Your task to perform on an android device: allow cookies in the chrome app Image 0: 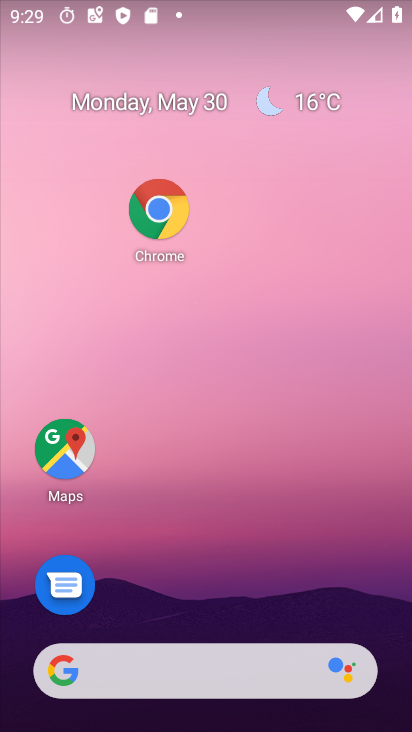
Step 0: drag from (235, 654) to (381, 116)
Your task to perform on an android device: allow cookies in the chrome app Image 1: 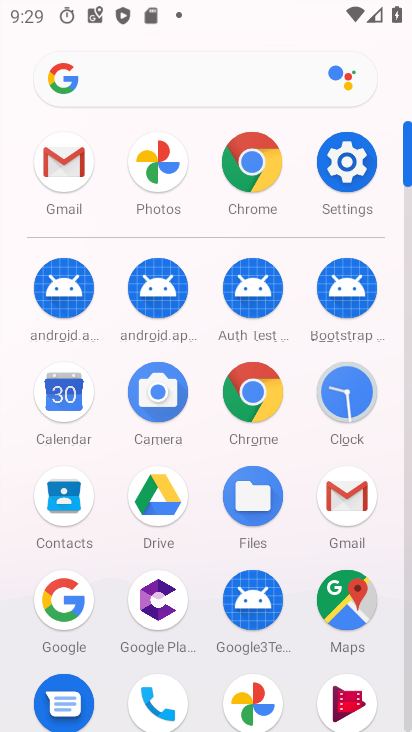
Step 1: click (262, 158)
Your task to perform on an android device: allow cookies in the chrome app Image 2: 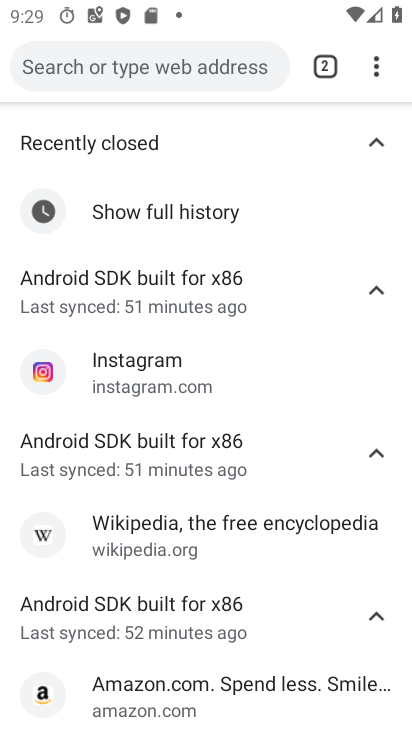
Step 2: drag from (379, 62) to (223, 552)
Your task to perform on an android device: allow cookies in the chrome app Image 3: 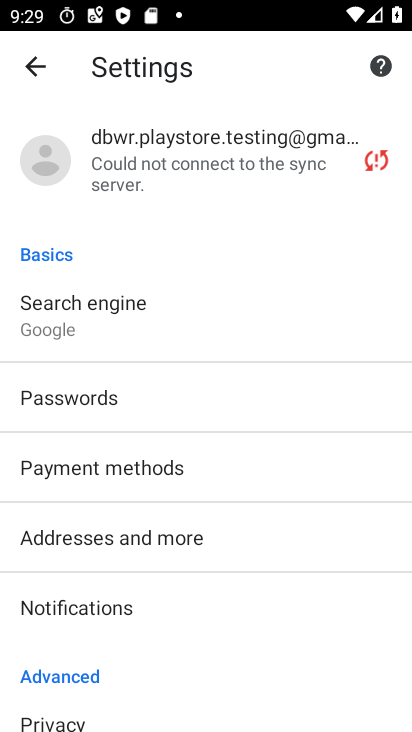
Step 3: drag from (178, 569) to (405, 128)
Your task to perform on an android device: allow cookies in the chrome app Image 4: 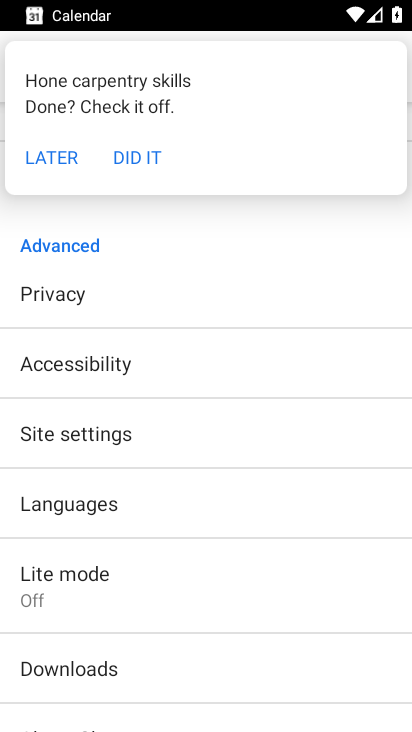
Step 4: click (151, 436)
Your task to perform on an android device: allow cookies in the chrome app Image 5: 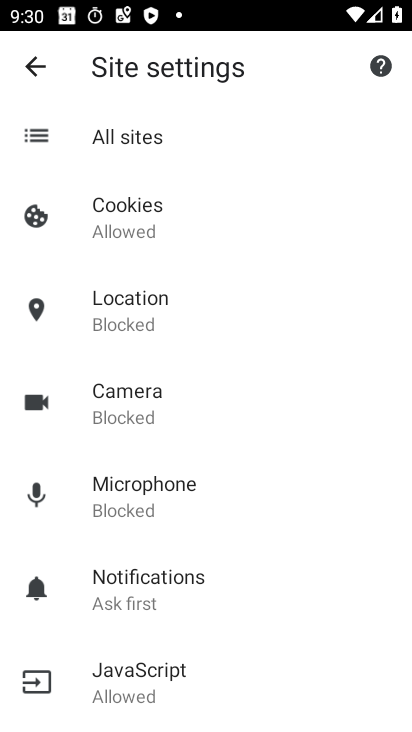
Step 5: click (138, 229)
Your task to perform on an android device: allow cookies in the chrome app Image 6: 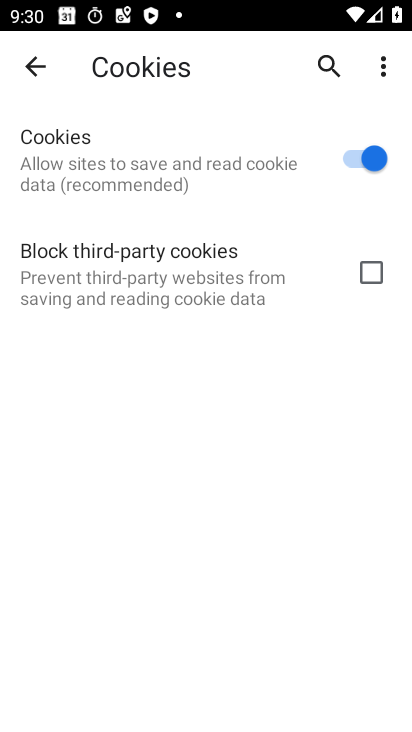
Step 6: task complete